Your task to perform on an android device: Search for a runner rug on Crate & Barrel. Image 0: 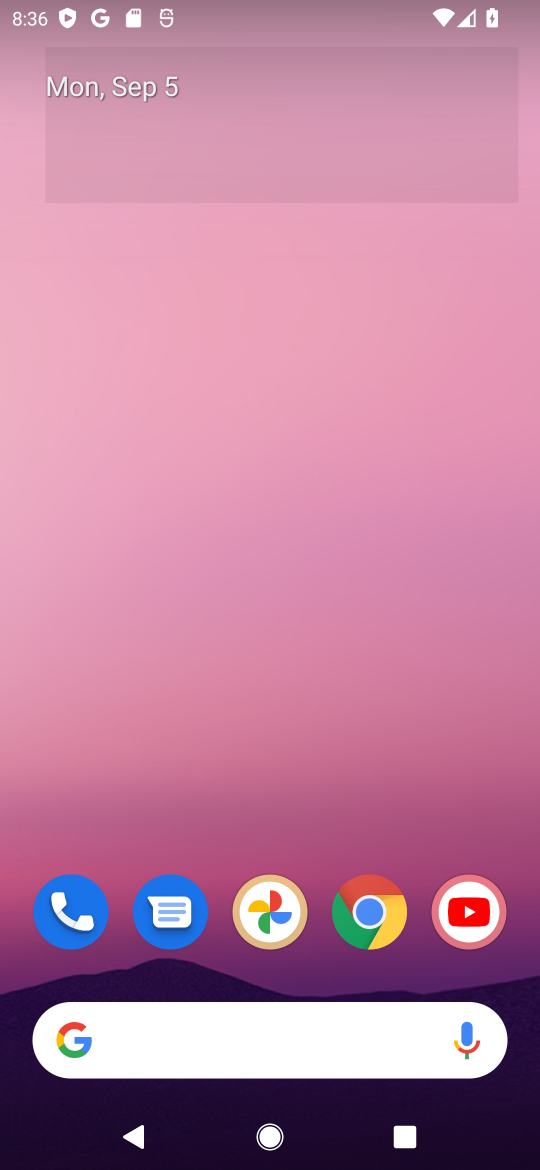
Step 0: click (355, 911)
Your task to perform on an android device: Search for a runner rug on Crate & Barrel. Image 1: 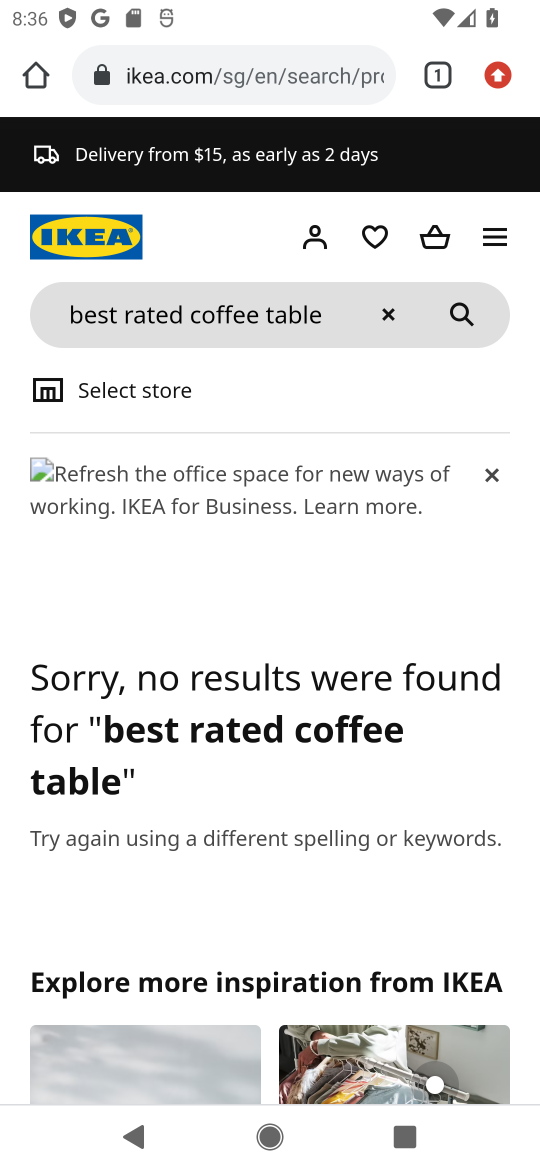
Step 1: click (297, 58)
Your task to perform on an android device: Search for a runner rug on Crate & Barrel. Image 2: 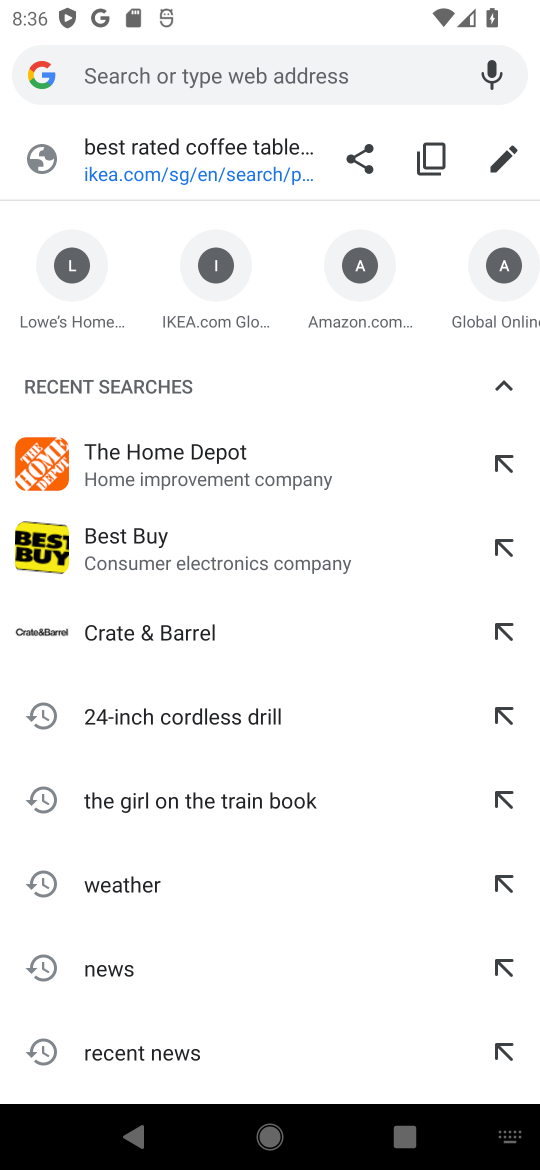
Step 2: type "crate & barrel"
Your task to perform on an android device: Search for a runner rug on Crate & Barrel. Image 3: 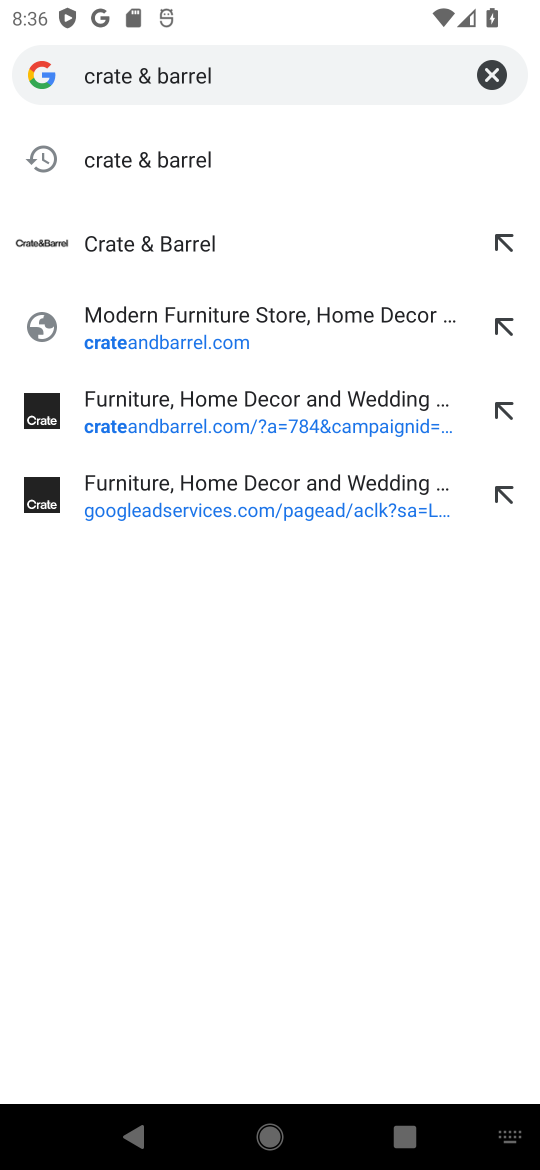
Step 3: press enter
Your task to perform on an android device: Search for a runner rug on Crate & Barrel. Image 4: 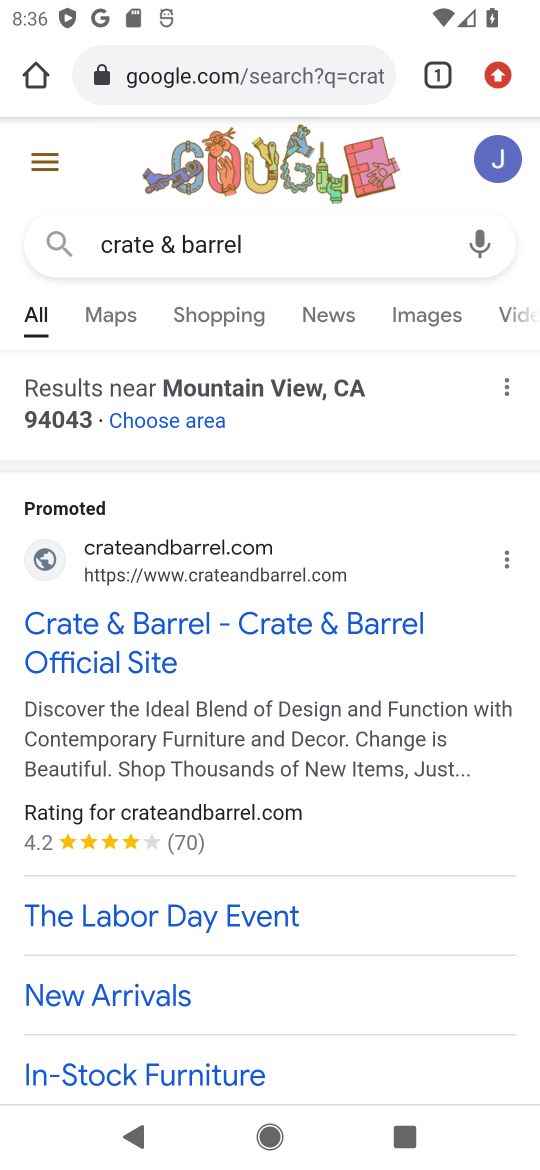
Step 4: click (133, 643)
Your task to perform on an android device: Search for a runner rug on Crate & Barrel. Image 5: 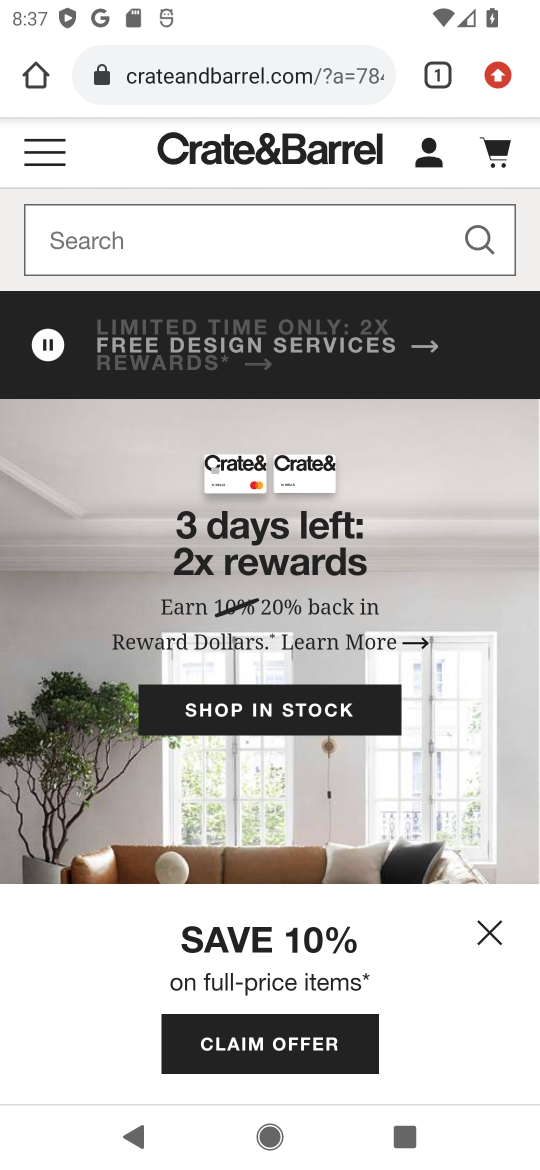
Step 5: click (140, 243)
Your task to perform on an android device: Search for a runner rug on Crate & Barrel. Image 6: 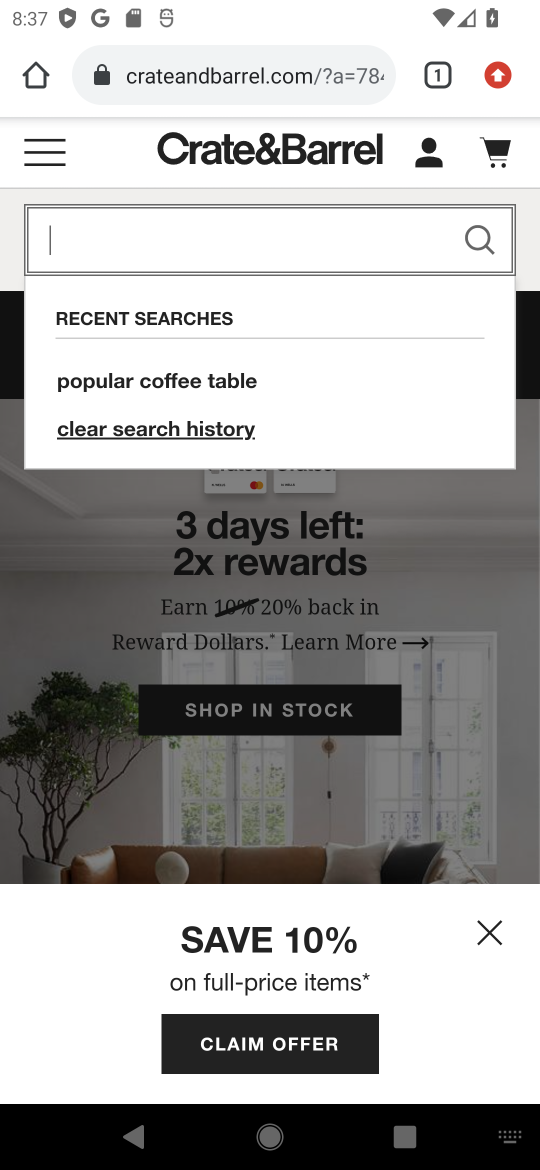
Step 6: type "runner rug"
Your task to perform on an android device: Search for a runner rug on Crate & Barrel. Image 7: 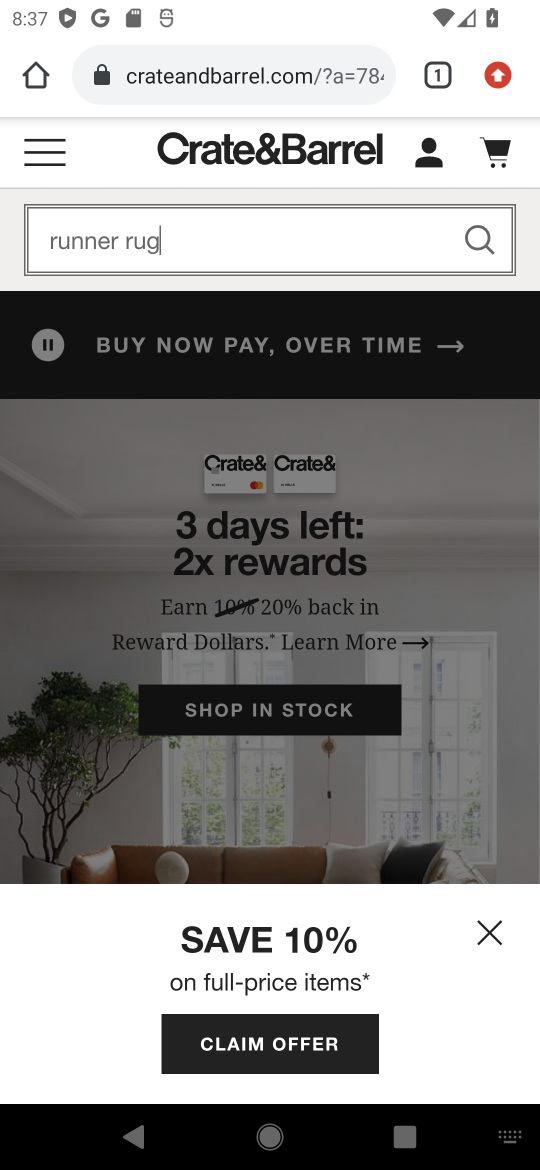
Step 7: press enter
Your task to perform on an android device: Search for a runner rug on Crate & Barrel. Image 8: 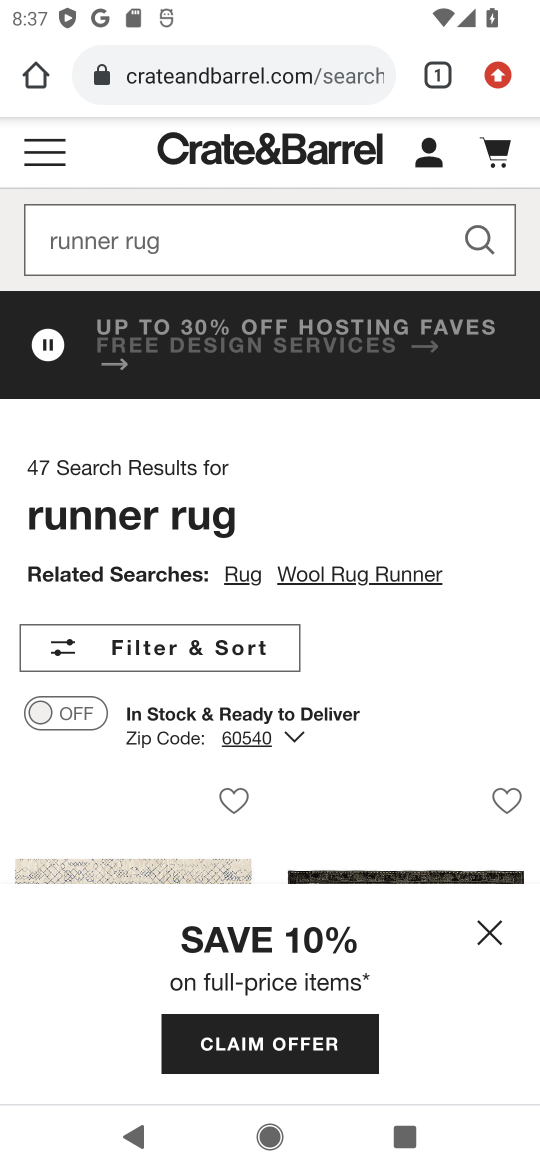
Step 8: drag from (278, 836) to (273, 606)
Your task to perform on an android device: Search for a runner rug on Crate & Barrel. Image 9: 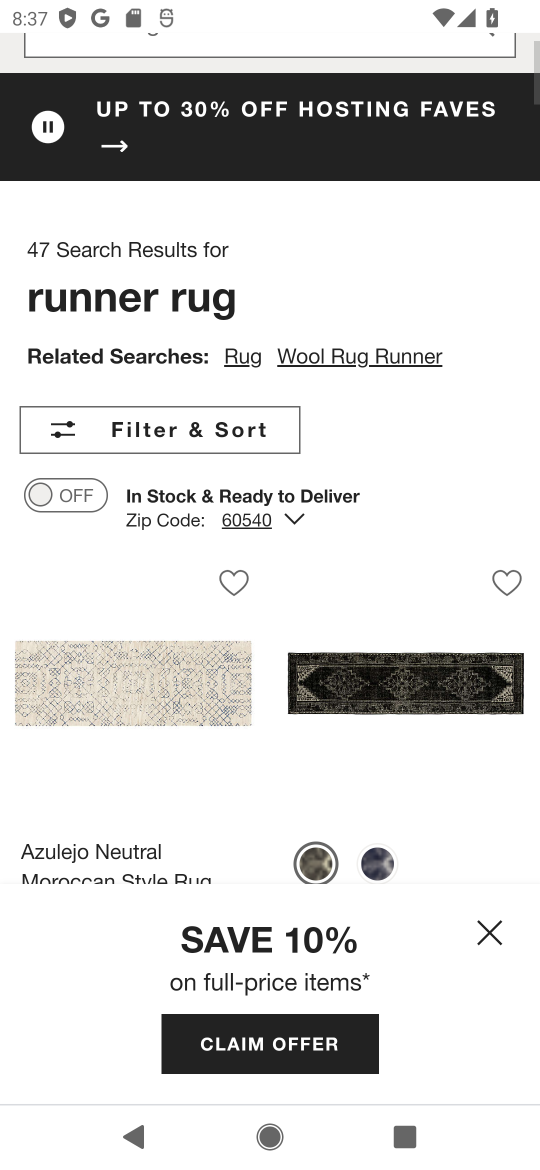
Step 9: click (485, 928)
Your task to perform on an android device: Search for a runner rug on Crate & Barrel. Image 10: 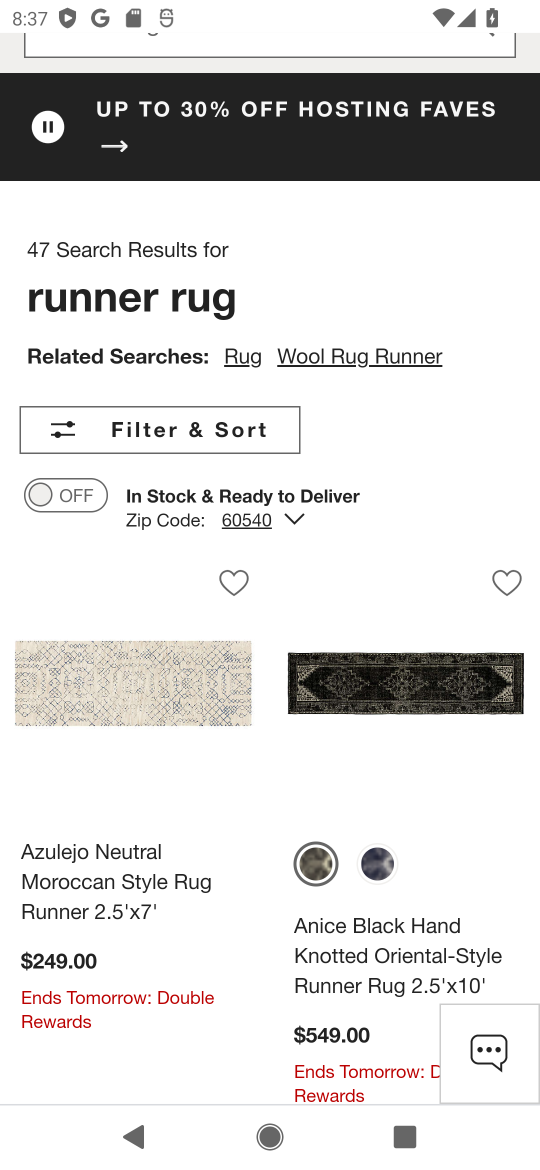
Step 10: drag from (385, 595) to (412, 480)
Your task to perform on an android device: Search for a runner rug on Crate & Barrel. Image 11: 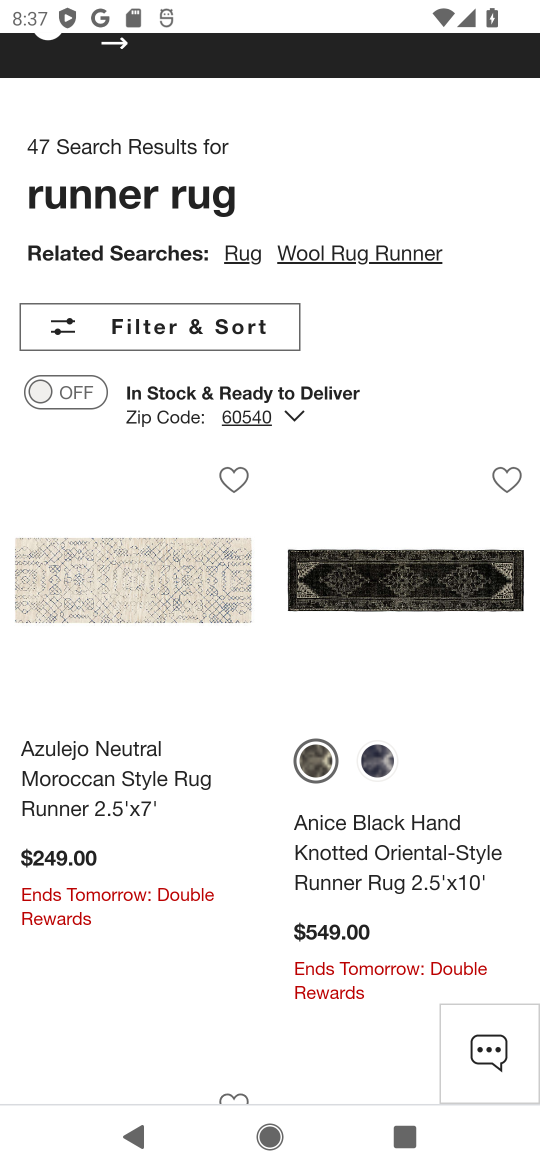
Step 11: drag from (358, 540) to (353, 312)
Your task to perform on an android device: Search for a runner rug on Crate & Barrel. Image 12: 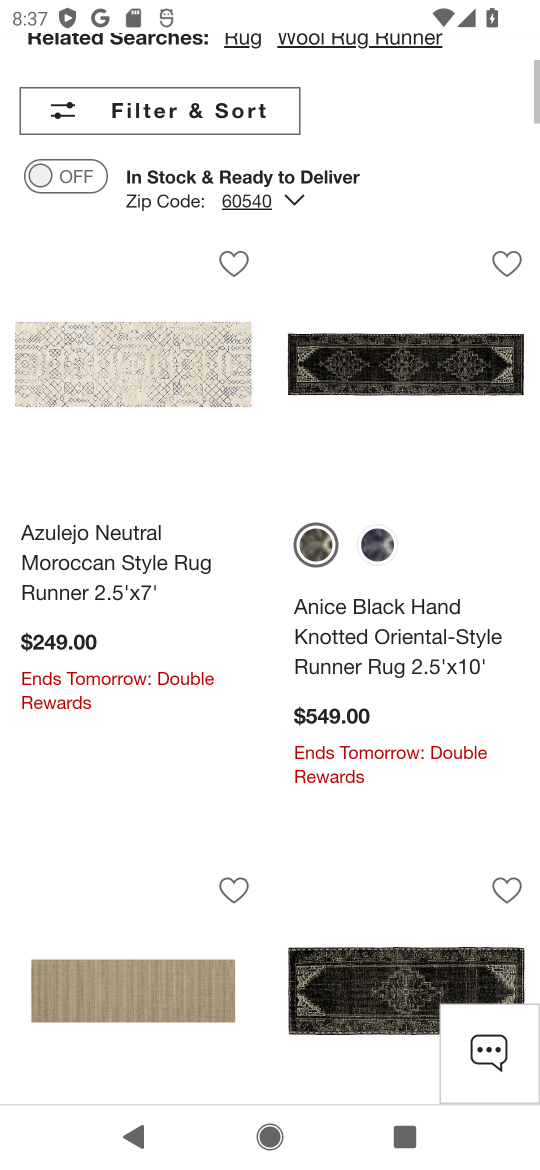
Step 12: drag from (394, 722) to (389, 464)
Your task to perform on an android device: Search for a runner rug on Crate & Barrel. Image 13: 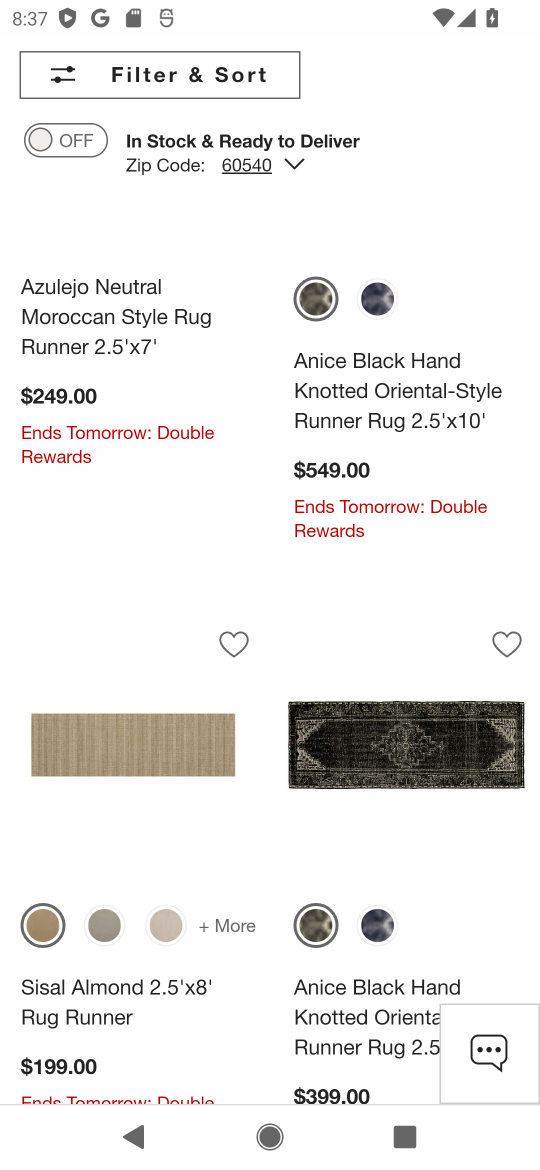
Step 13: drag from (408, 753) to (409, 570)
Your task to perform on an android device: Search for a runner rug on Crate & Barrel. Image 14: 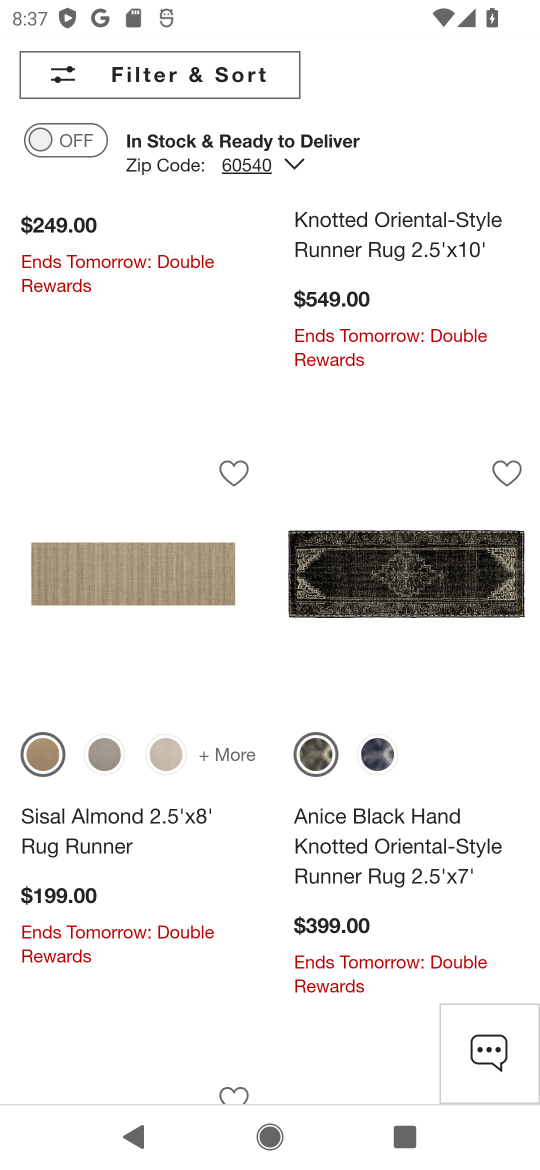
Step 14: drag from (345, 935) to (347, 726)
Your task to perform on an android device: Search for a runner rug on Crate & Barrel. Image 15: 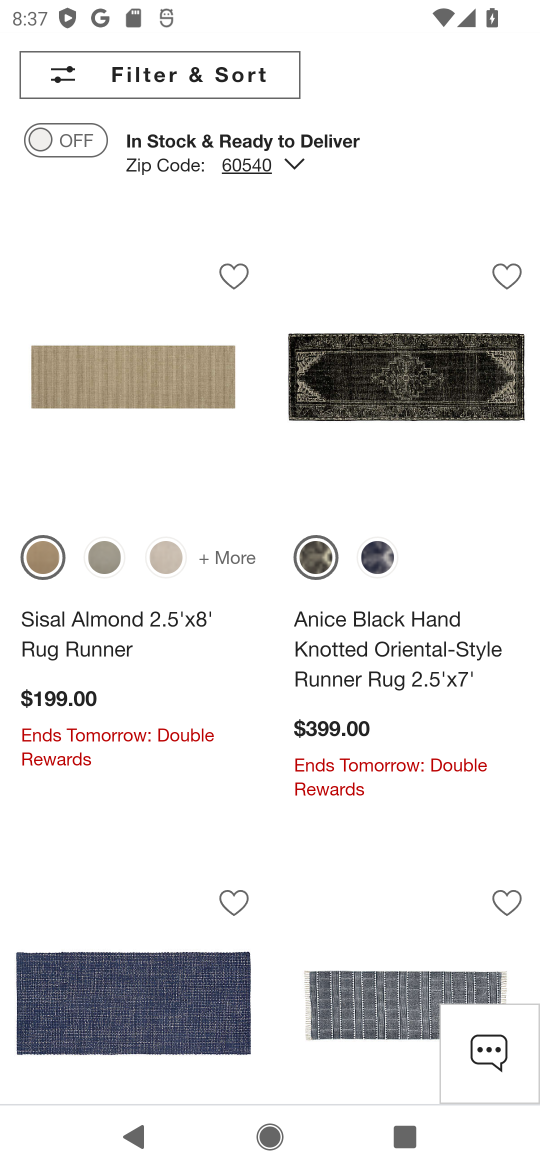
Step 15: drag from (356, 996) to (317, 800)
Your task to perform on an android device: Search for a runner rug on Crate & Barrel. Image 16: 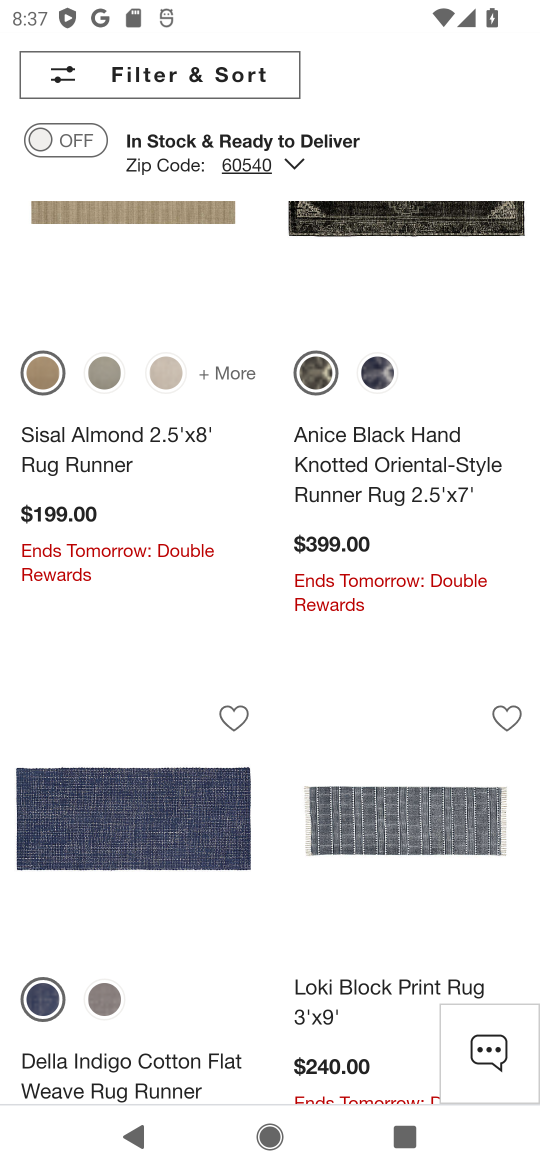
Step 16: drag from (360, 768) to (383, 918)
Your task to perform on an android device: Search for a runner rug on Crate & Barrel. Image 17: 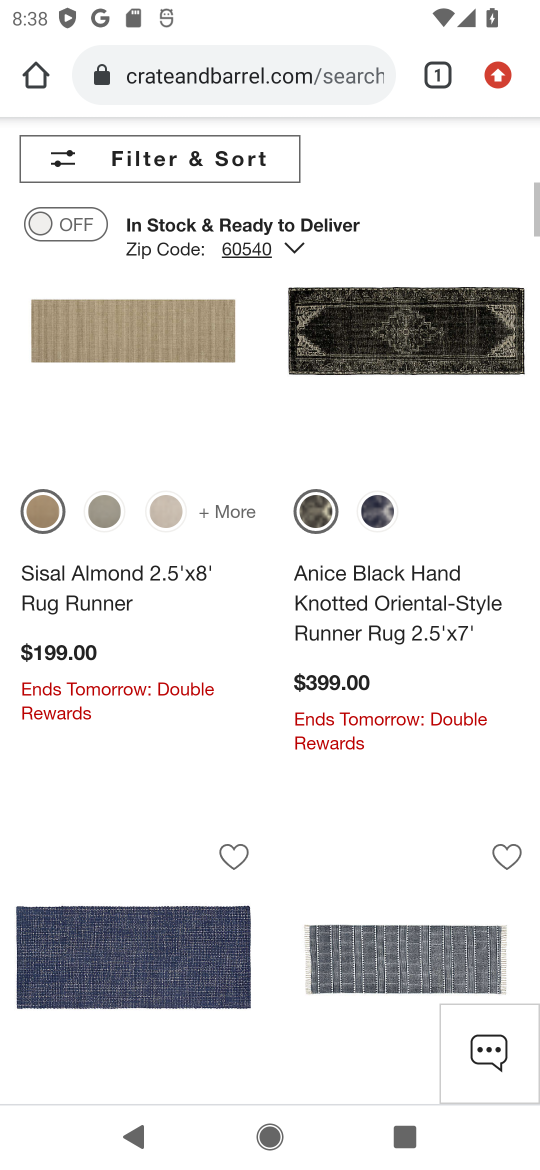
Step 17: drag from (317, 582) to (343, 878)
Your task to perform on an android device: Search for a runner rug on Crate & Barrel. Image 18: 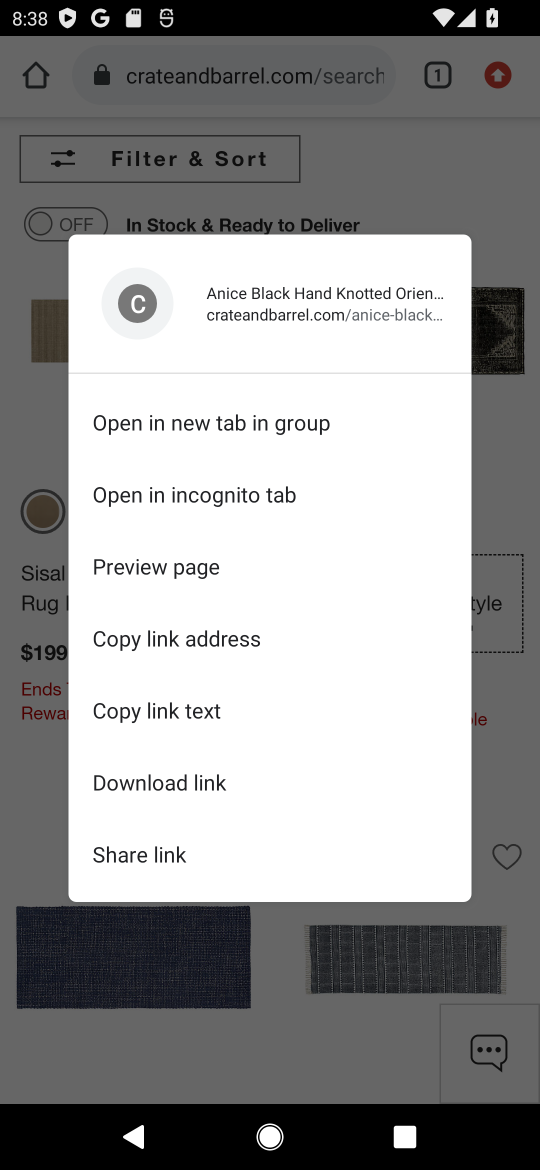
Step 18: click (491, 585)
Your task to perform on an android device: Search for a runner rug on Crate & Barrel. Image 19: 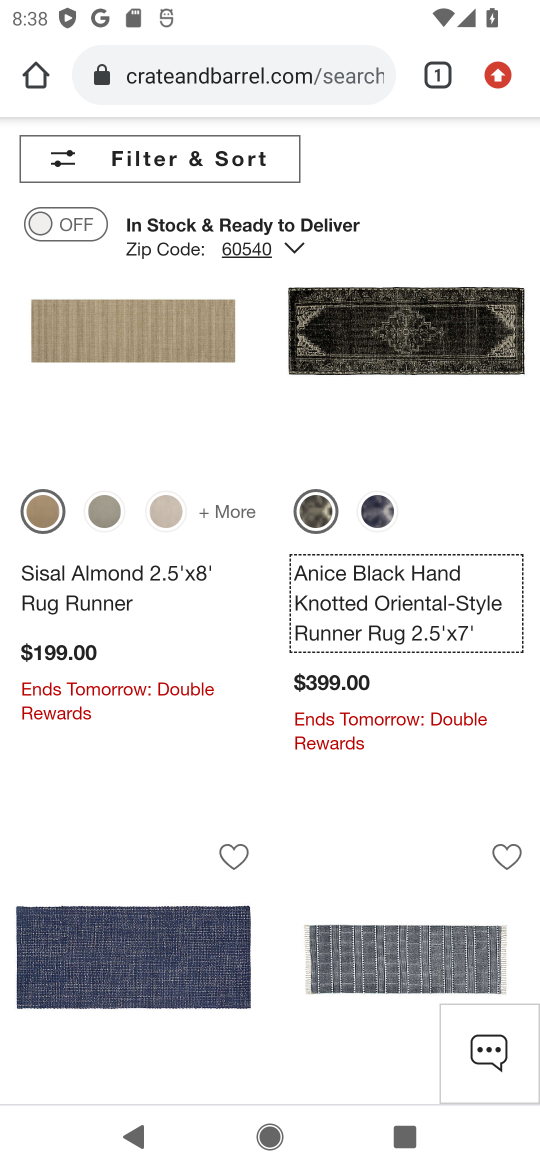
Step 19: task complete